Your task to perform on an android device: check out phone information Image 0: 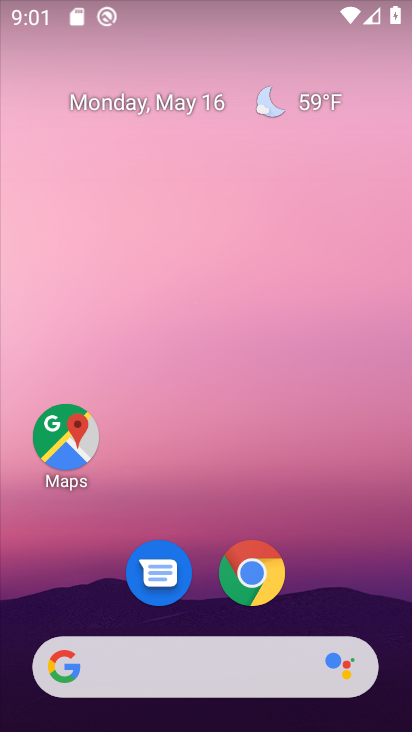
Step 0: drag from (166, 655) to (344, 108)
Your task to perform on an android device: check out phone information Image 1: 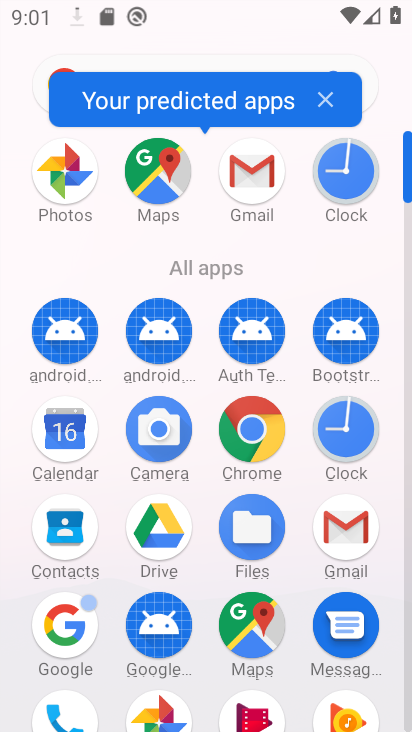
Step 1: drag from (304, 453) to (239, 10)
Your task to perform on an android device: check out phone information Image 2: 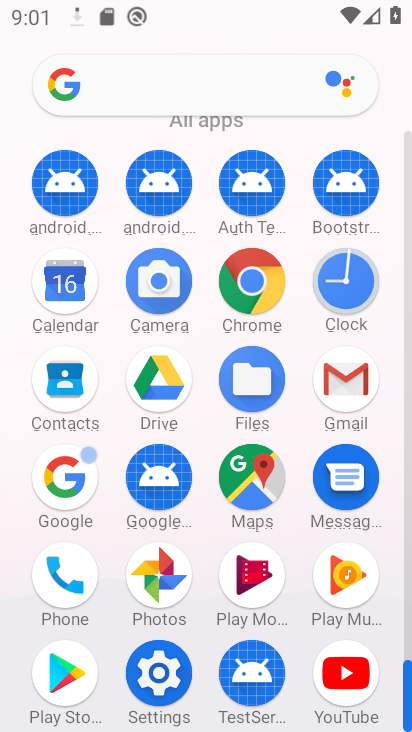
Step 2: click (169, 676)
Your task to perform on an android device: check out phone information Image 3: 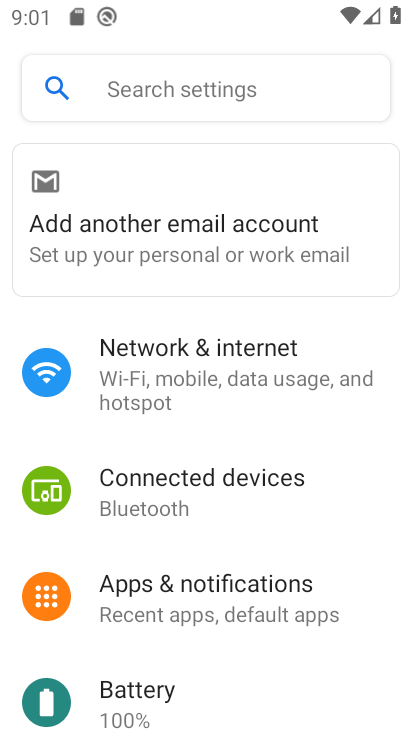
Step 3: drag from (169, 676) to (178, 78)
Your task to perform on an android device: check out phone information Image 4: 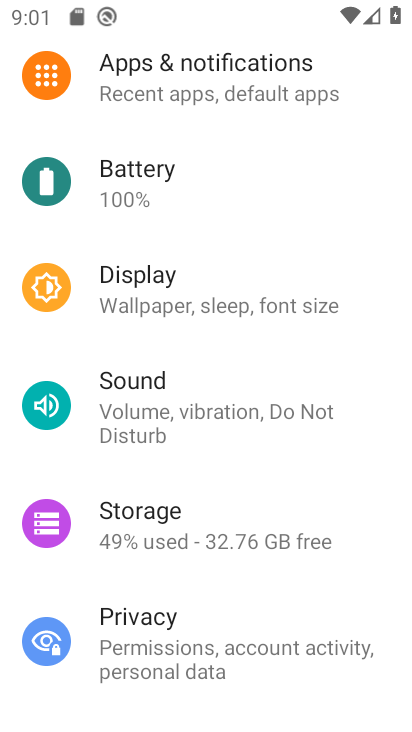
Step 4: drag from (148, 690) to (113, 16)
Your task to perform on an android device: check out phone information Image 5: 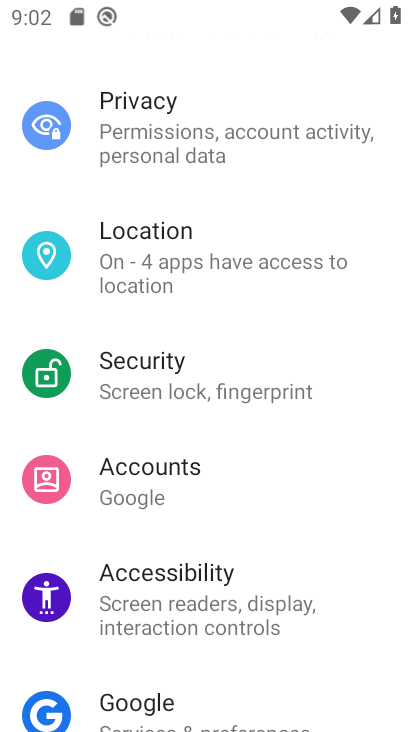
Step 5: drag from (101, 629) to (113, 1)
Your task to perform on an android device: check out phone information Image 6: 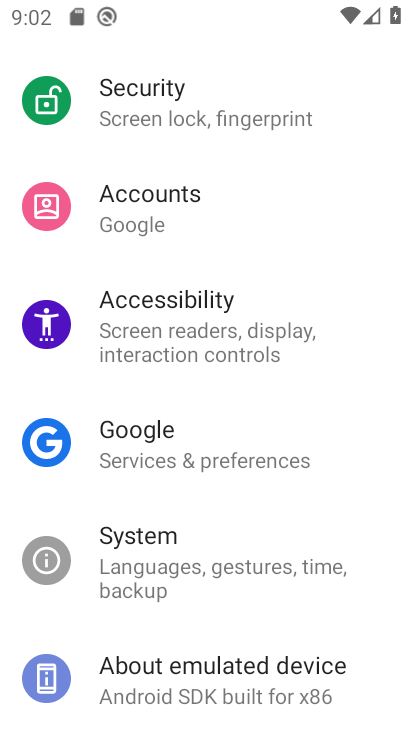
Step 6: click (193, 670)
Your task to perform on an android device: check out phone information Image 7: 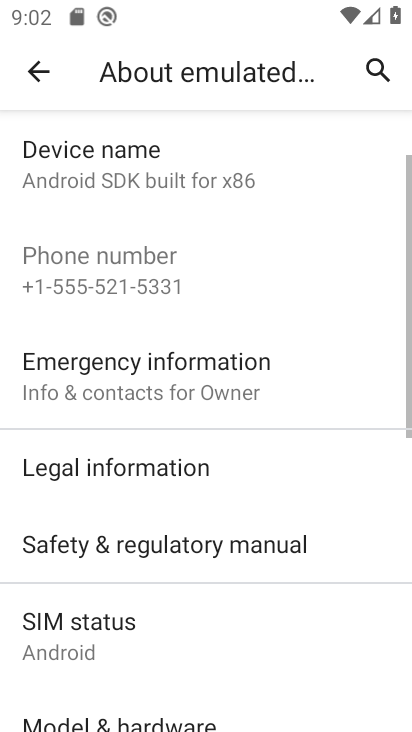
Step 7: task complete